Your task to perform on an android device: Go to Amazon Image 0: 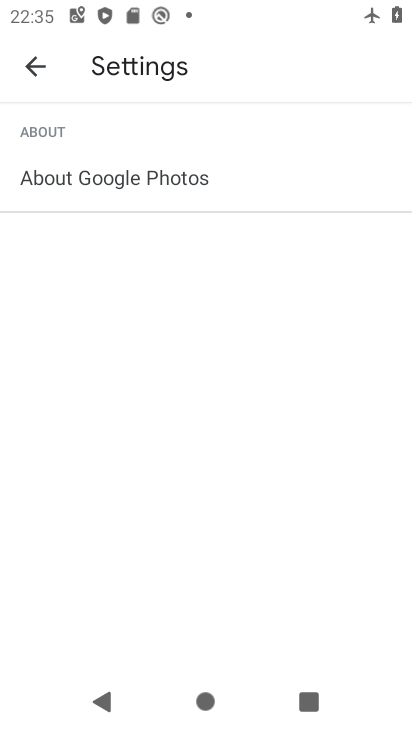
Step 0: press home button
Your task to perform on an android device: Go to Amazon Image 1: 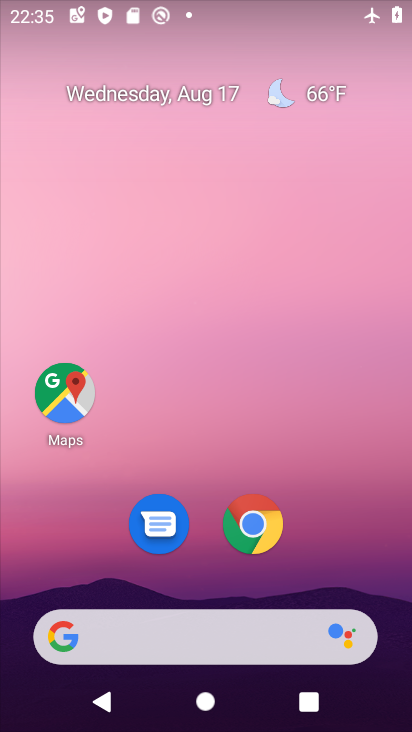
Step 1: click (255, 518)
Your task to perform on an android device: Go to Amazon Image 2: 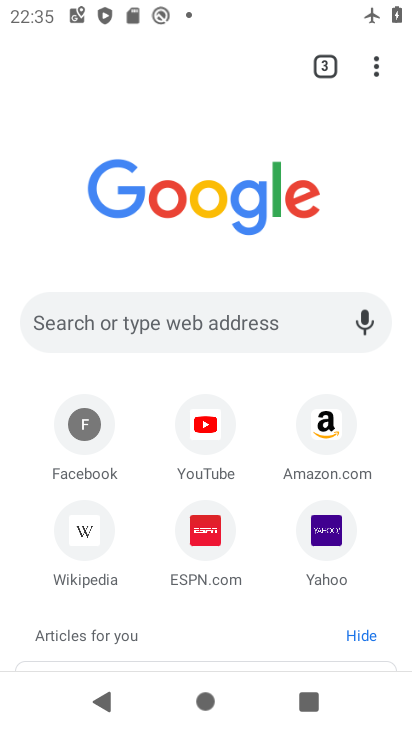
Step 2: click (328, 422)
Your task to perform on an android device: Go to Amazon Image 3: 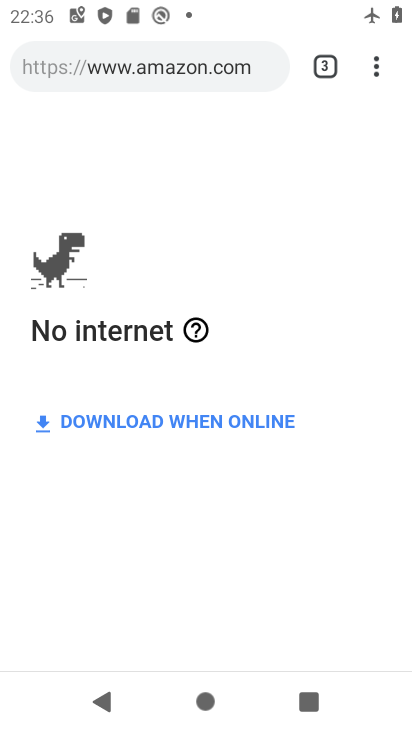
Step 3: task complete